Your task to perform on an android device: turn on bluetooth scan Image 0: 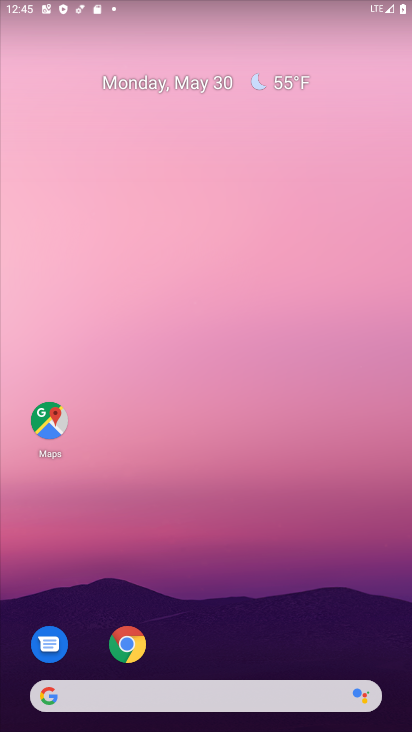
Step 0: drag from (303, 618) to (270, 116)
Your task to perform on an android device: turn on bluetooth scan Image 1: 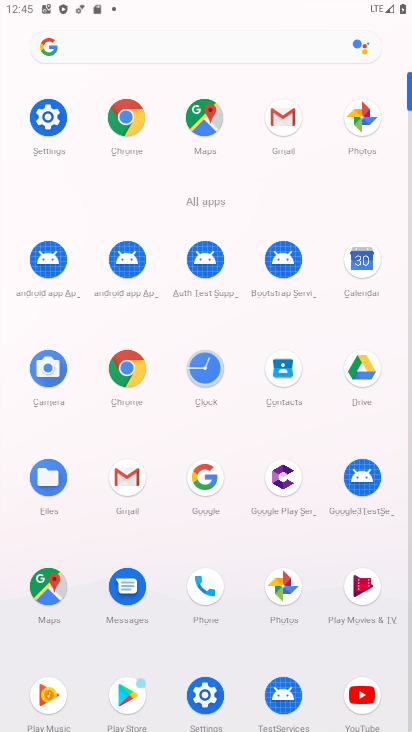
Step 1: click (41, 113)
Your task to perform on an android device: turn on bluetooth scan Image 2: 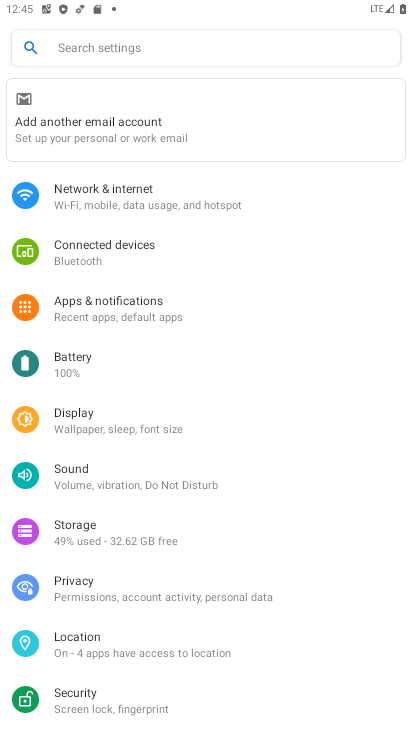
Step 2: click (140, 632)
Your task to perform on an android device: turn on bluetooth scan Image 3: 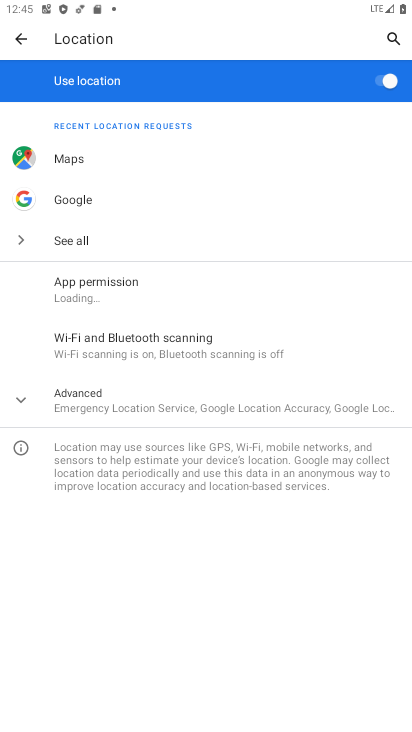
Step 3: click (225, 415)
Your task to perform on an android device: turn on bluetooth scan Image 4: 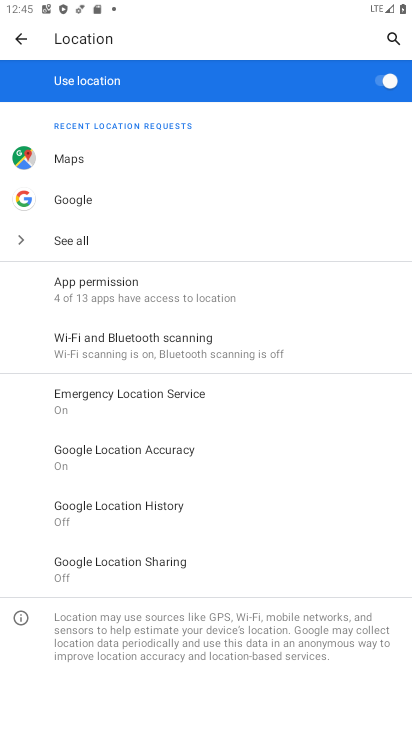
Step 4: click (157, 345)
Your task to perform on an android device: turn on bluetooth scan Image 5: 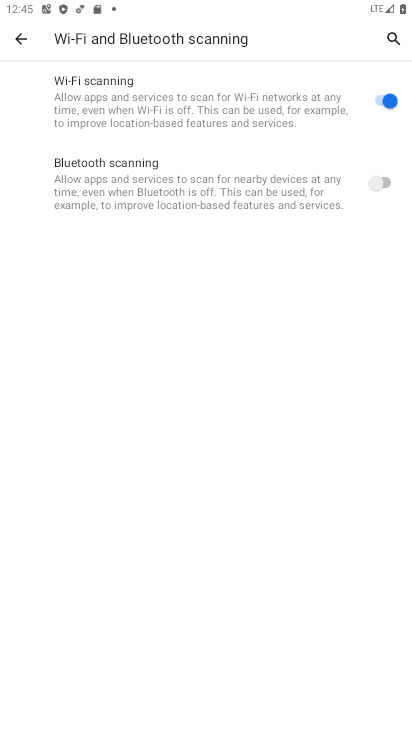
Step 5: click (357, 207)
Your task to perform on an android device: turn on bluetooth scan Image 6: 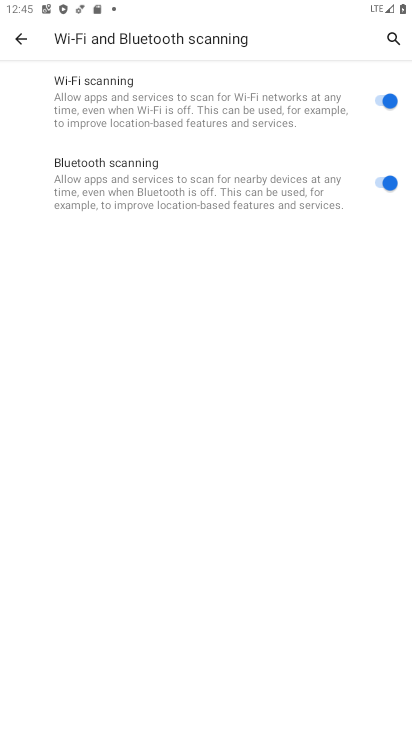
Step 6: task complete